Your task to perform on an android device: Open the calendar and show me this week's events? Image 0: 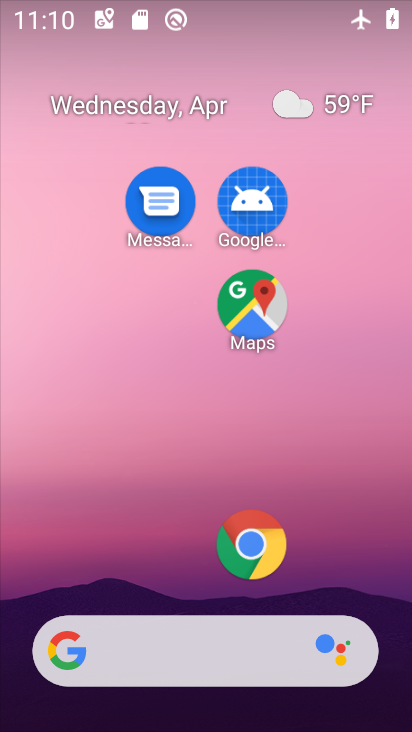
Step 0: drag from (192, 567) to (232, 72)
Your task to perform on an android device: Open the calendar and show me this week's events? Image 1: 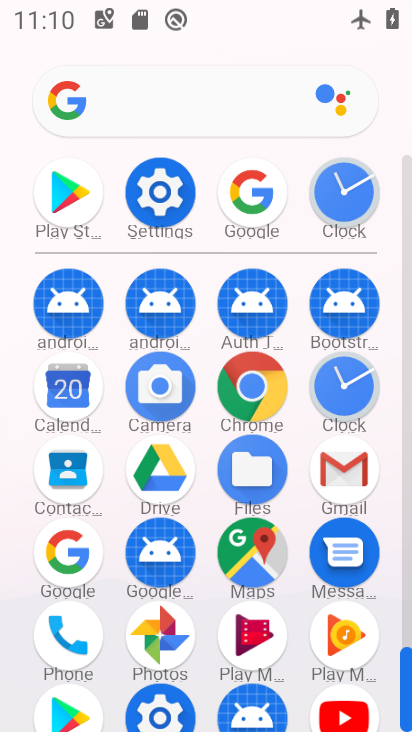
Step 1: click (66, 389)
Your task to perform on an android device: Open the calendar and show me this week's events? Image 2: 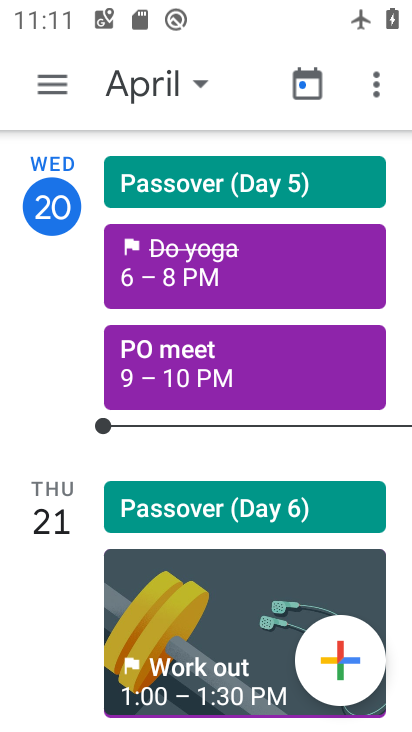
Step 2: click (160, 77)
Your task to perform on an android device: Open the calendar and show me this week's events? Image 3: 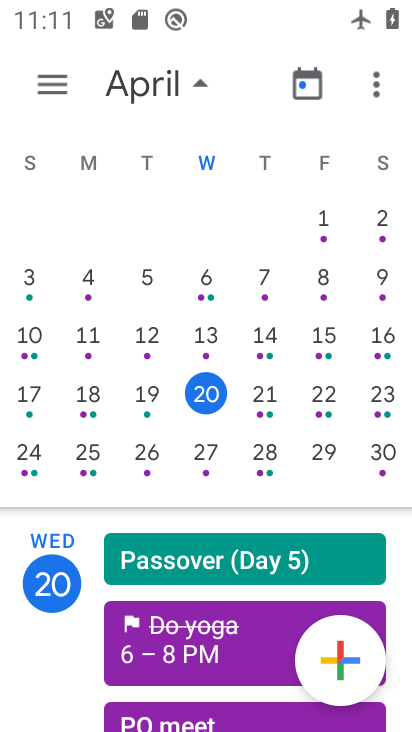
Step 3: click (318, 398)
Your task to perform on an android device: Open the calendar and show me this week's events? Image 4: 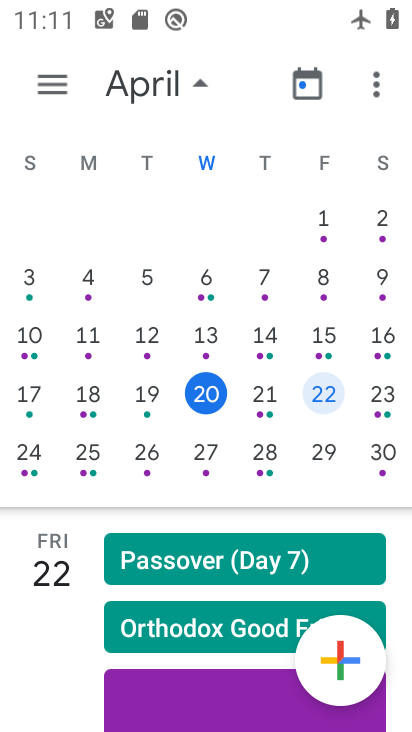
Step 4: click (221, 614)
Your task to perform on an android device: Open the calendar and show me this week's events? Image 5: 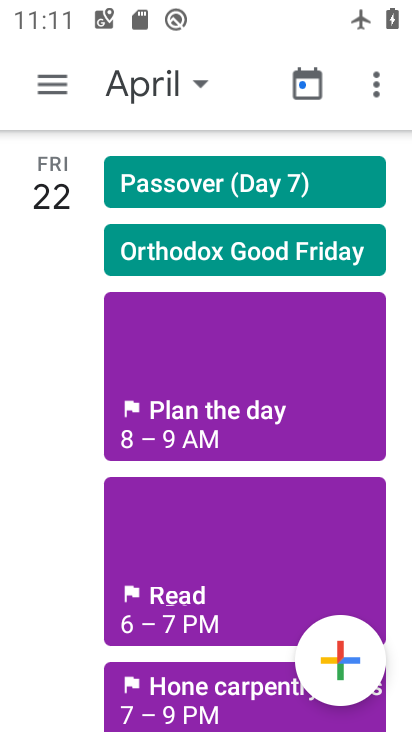
Step 5: task complete